Your task to perform on an android device: turn off sleep mode Image 0: 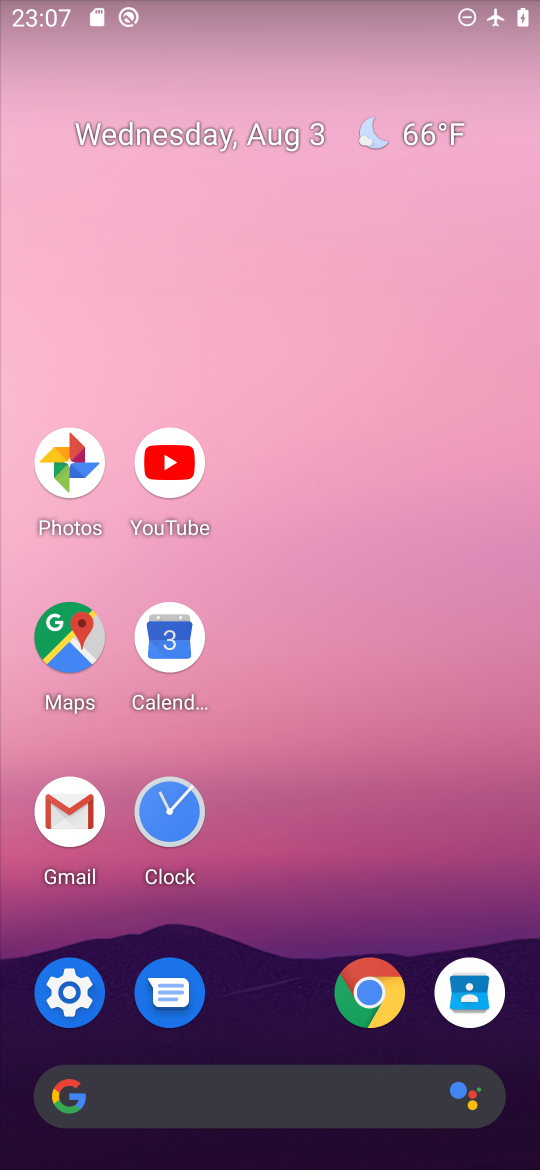
Step 0: click (78, 992)
Your task to perform on an android device: turn off sleep mode Image 1: 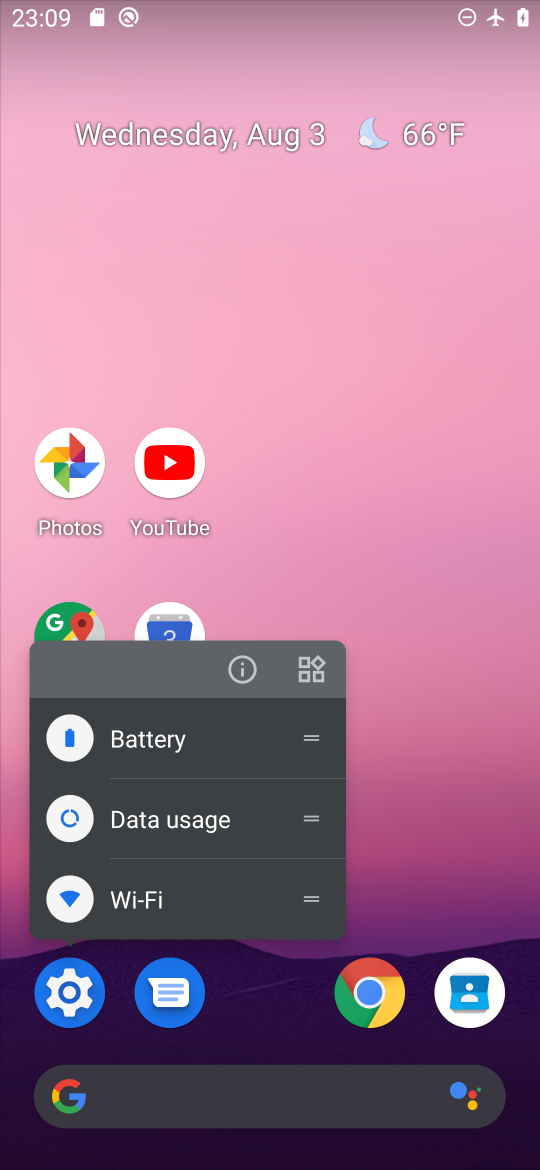
Step 1: click (56, 999)
Your task to perform on an android device: turn off sleep mode Image 2: 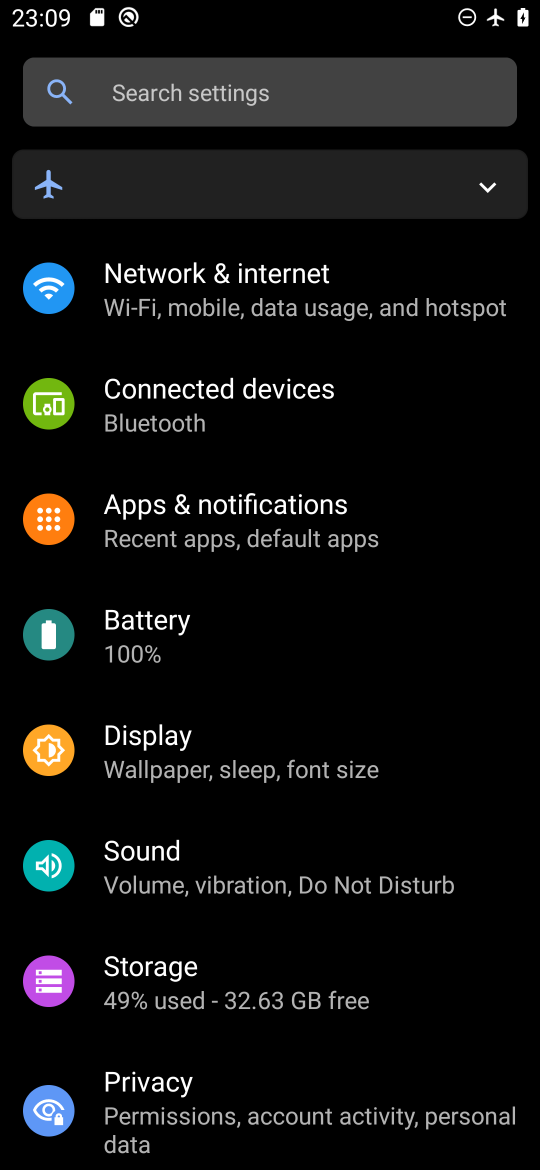
Step 2: click (184, 760)
Your task to perform on an android device: turn off sleep mode Image 3: 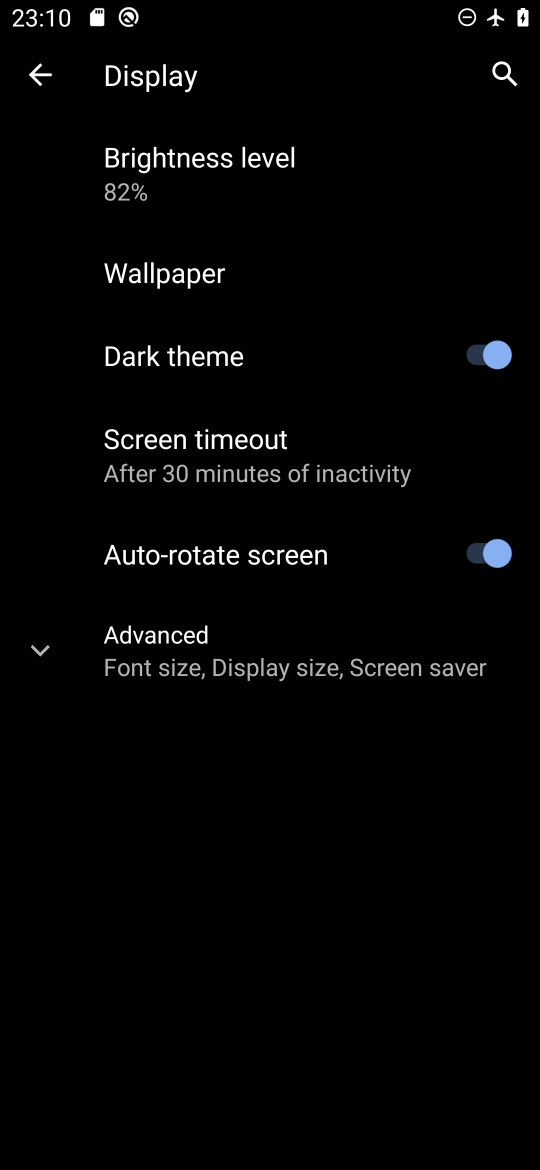
Step 3: task complete